Your task to perform on an android device: open app "Facebook Lite" (install if not already installed), go to login, and select forgot password Image 0: 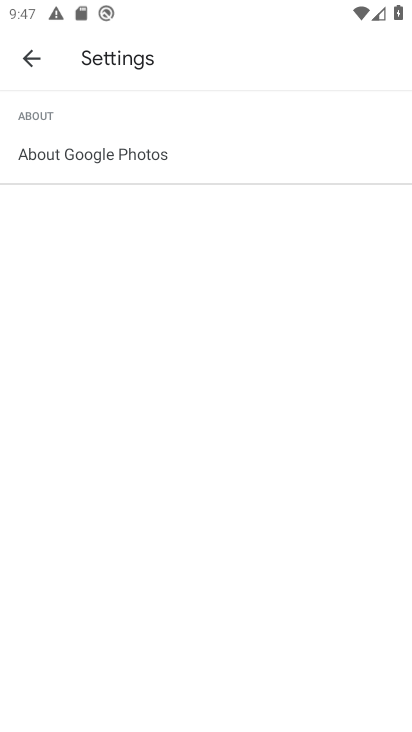
Step 0: press home button
Your task to perform on an android device: open app "Facebook Lite" (install if not already installed), go to login, and select forgot password Image 1: 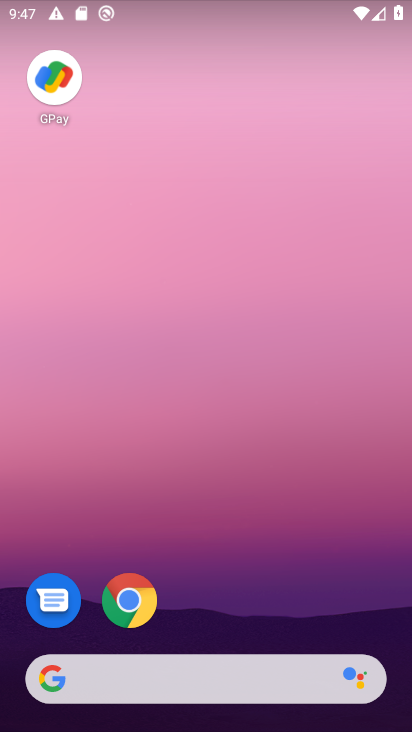
Step 1: drag from (209, 568) to (200, 114)
Your task to perform on an android device: open app "Facebook Lite" (install if not already installed), go to login, and select forgot password Image 2: 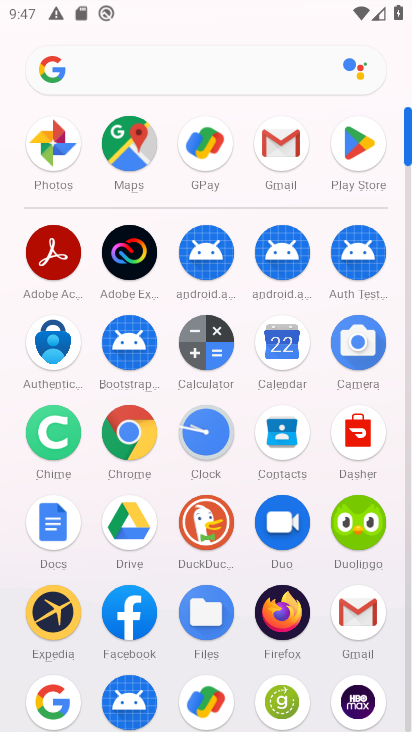
Step 2: click (374, 147)
Your task to perform on an android device: open app "Facebook Lite" (install if not already installed), go to login, and select forgot password Image 3: 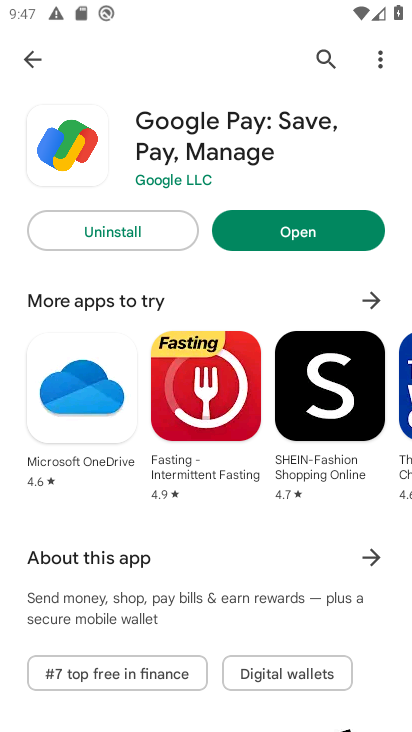
Step 3: click (329, 51)
Your task to perform on an android device: open app "Facebook Lite" (install if not already installed), go to login, and select forgot password Image 4: 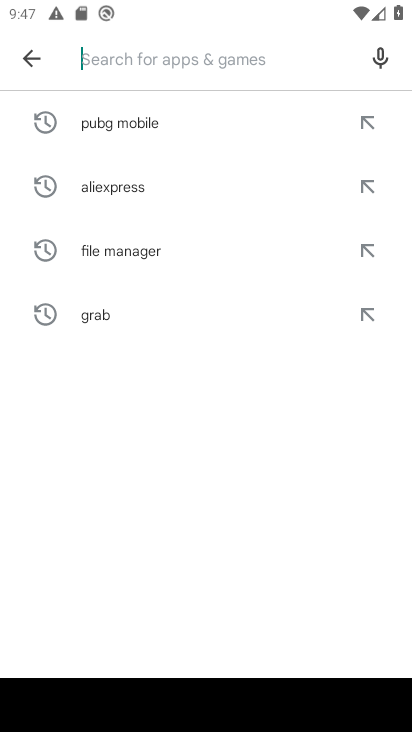
Step 4: click (294, 52)
Your task to perform on an android device: open app "Facebook Lite" (install if not already installed), go to login, and select forgot password Image 5: 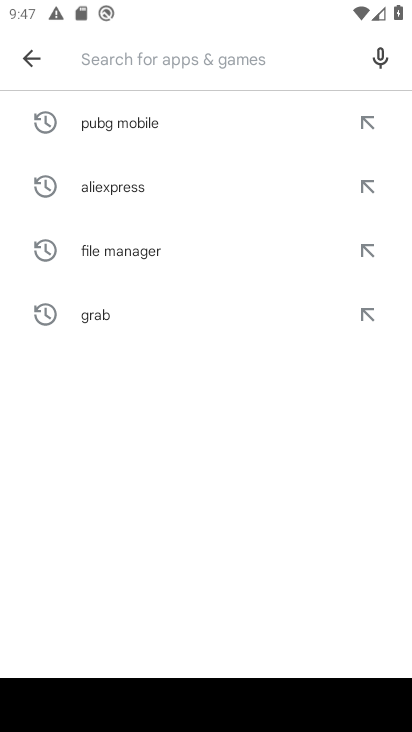
Step 5: type "Facebook Lite"
Your task to perform on an android device: open app "Facebook Lite" (install if not already installed), go to login, and select forgot password Image 6: 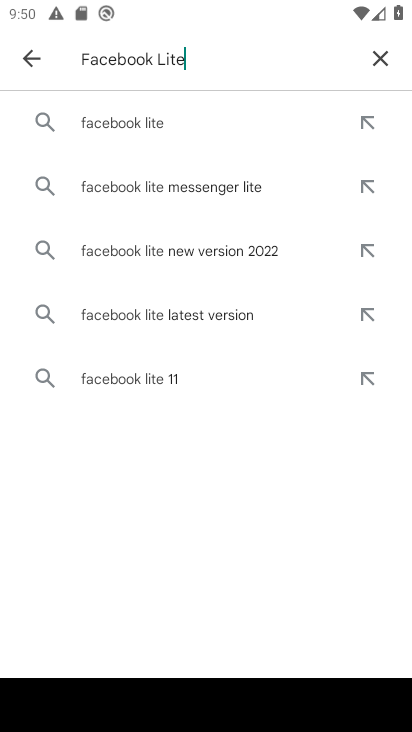
Step 6: click (171, 120)
Your task to perform on an android device: open app "Facebook Lite" (install if not already installed), go to login, and select forgot password Image 7: 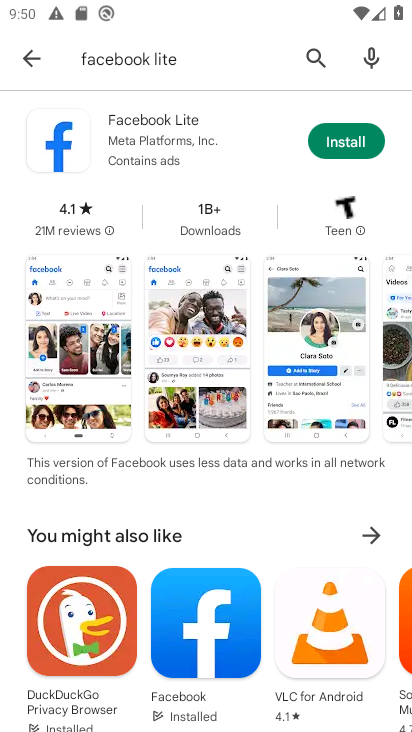
Step 7: click (324, 134)
Your task to perform on an android device: open app "Facebook Lite" (install if not already installed), go to login, and select forgot password Image 8: 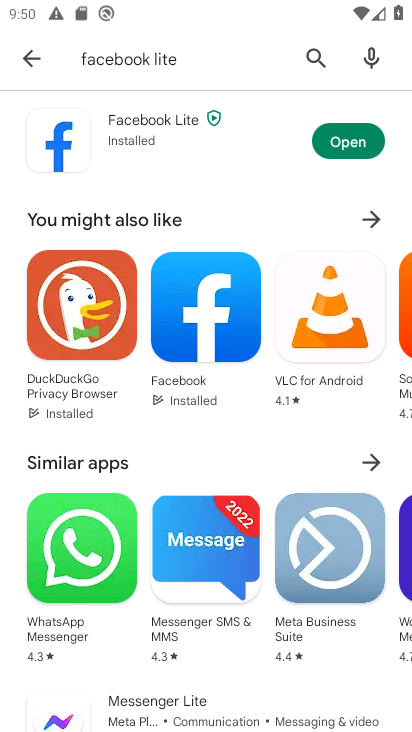
Step 8: click (361, 149)
Your task to perform on an android device: open app "Facebook Lite" (install if not already installed), go to login, and select forgot password Image 9: 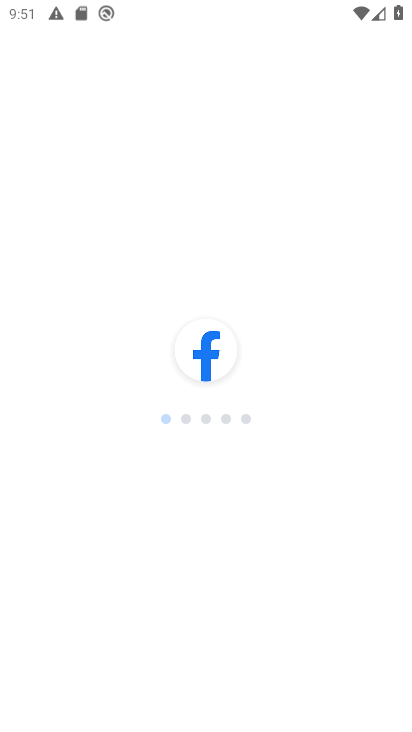
Step 9: task complete